Your task to perform on an android device: Open Yahoo.com Image 0: 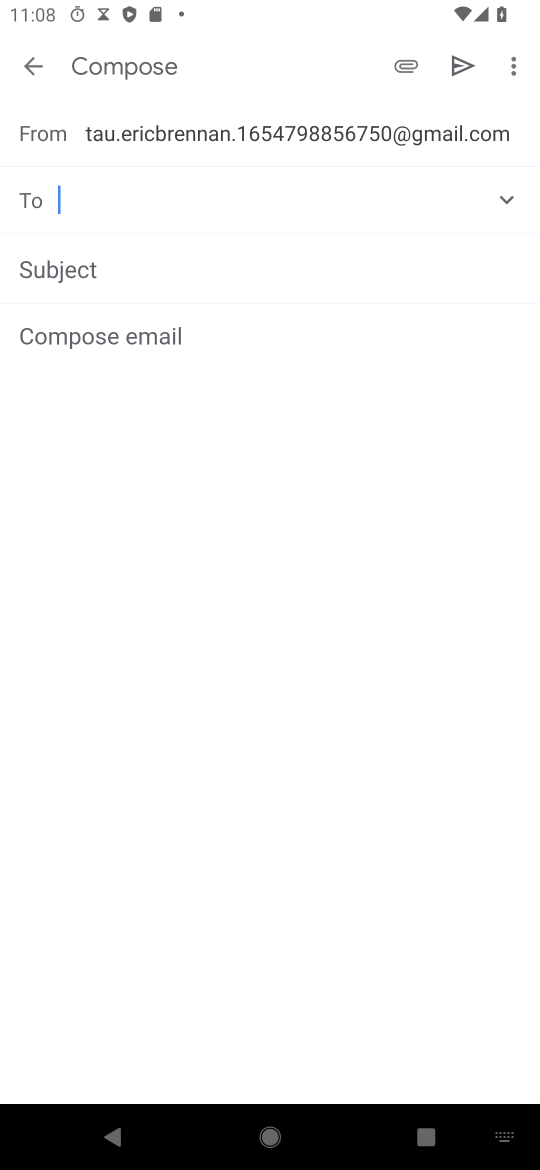
Step 0: press back button
Your task to perform on an android device: Open Yahoo.com Image 1: 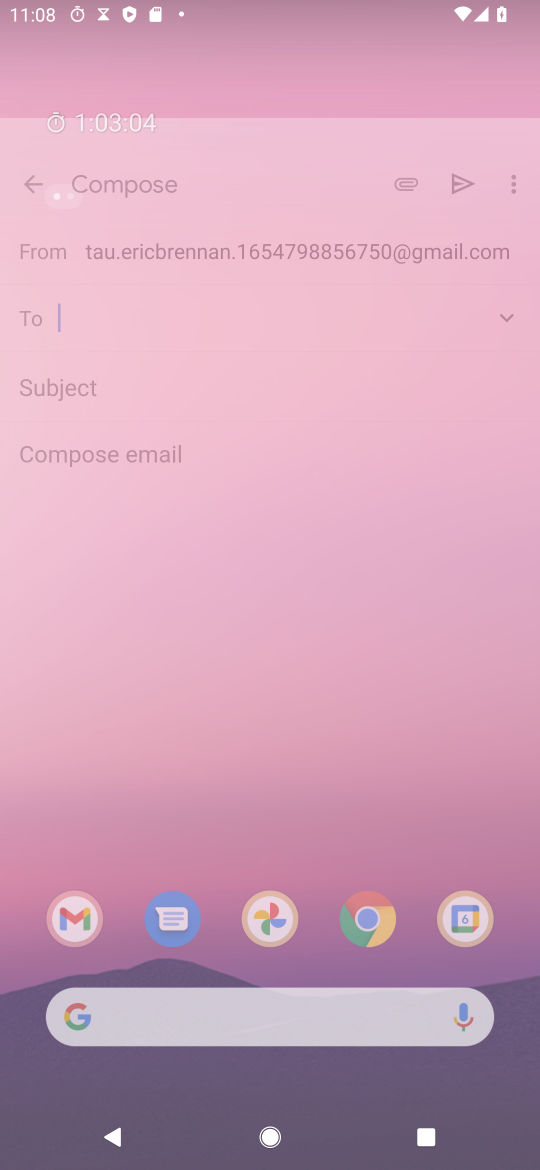
Step 1: press home button
Your task to perform on an android device: Open Yahoo.com Image 2: 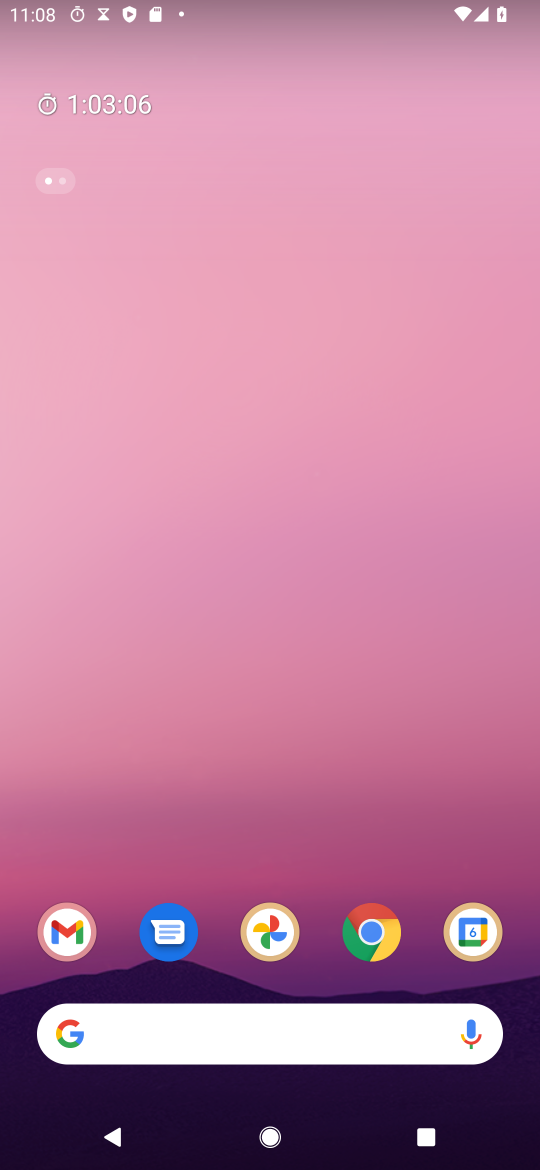
Step 2: click (370, 940)
Your task to perform on an android device: Open Yahoo.com Image 3: 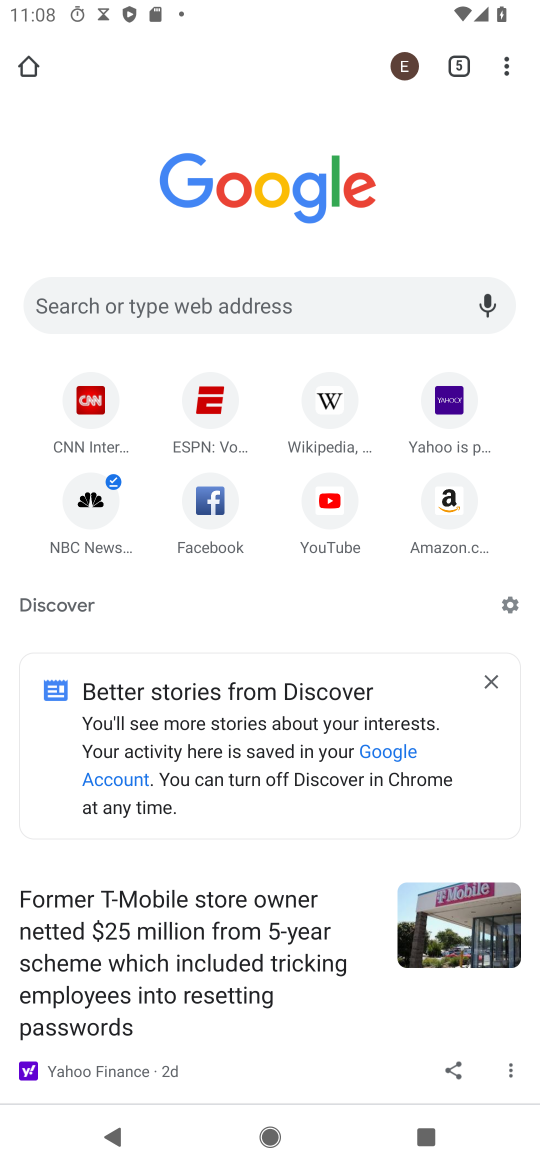
Step 3: click (453, 412)
Your task to perform on an android device: Open Yahoo.com Image 4: 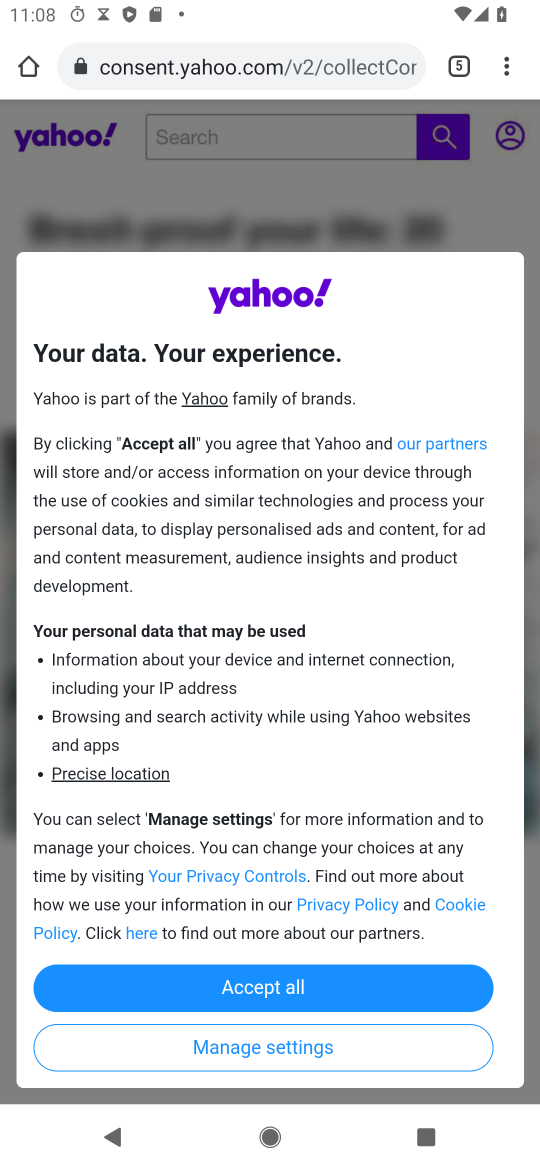
Step 4: task complete